Your task to perform on an android device: Search for "asus rog" on newegg.com, select the first entry, add it to the cart, then select checkout. Image 0: 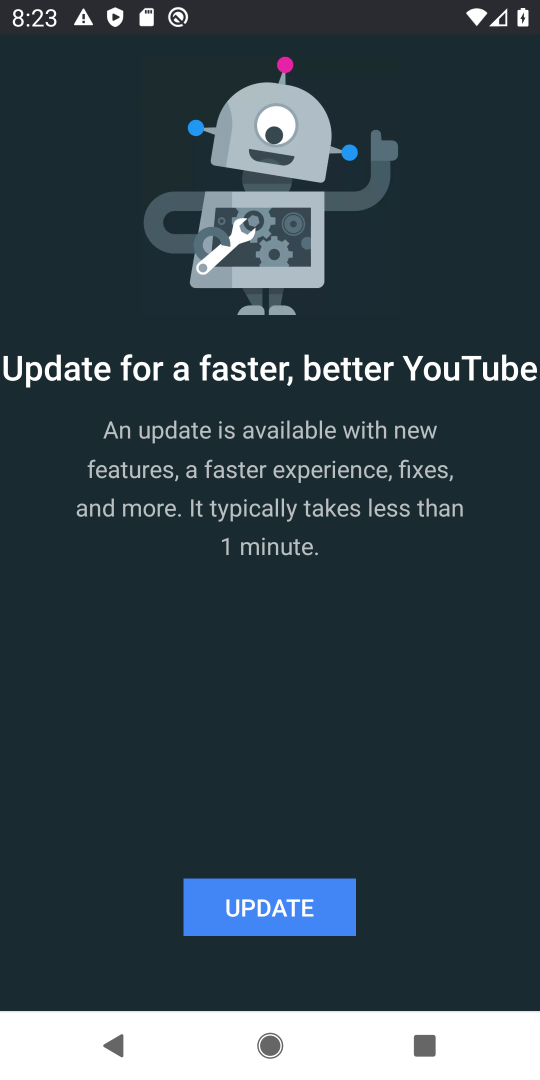
Step 0: task complete